Your task to perform on an android device: turn on notifications settings in the gmail app Image 0: 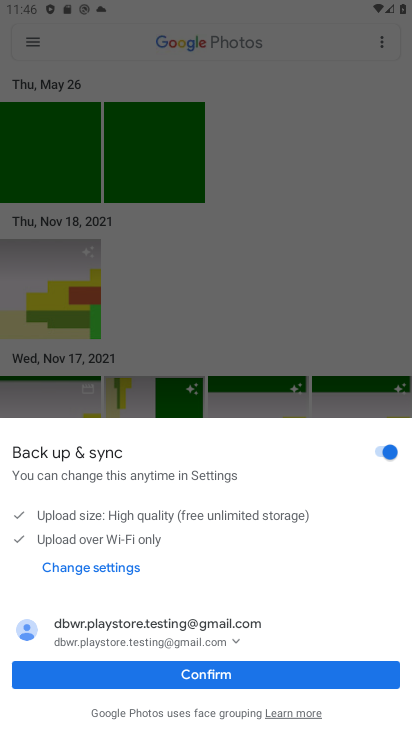
Step 0: press home button
Your task to perform on an android device: turn on notifications settings in the gmail app Image 1: 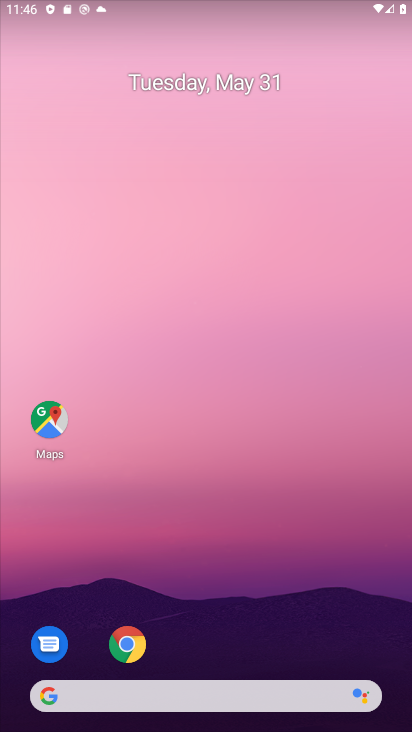
Step 1: drag from (277, 549) to (269, 167)
Your task to perform on an android device: turn on notifications settings in the gmail app Image 2: 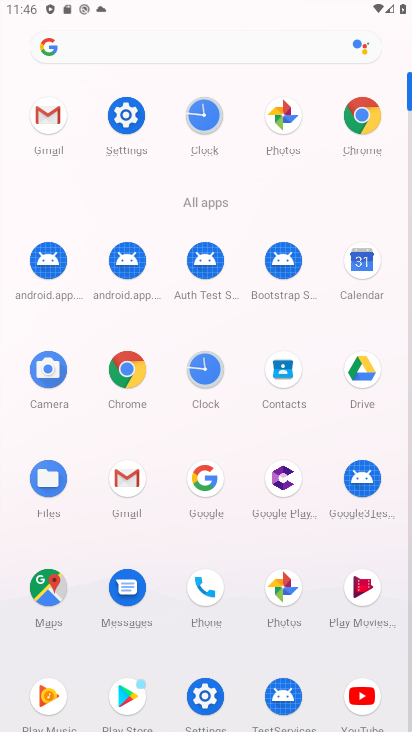
Step 2: click (208, 689)
Your task to perform on an android device: turn on notifications settings in the gmail app Image 3: 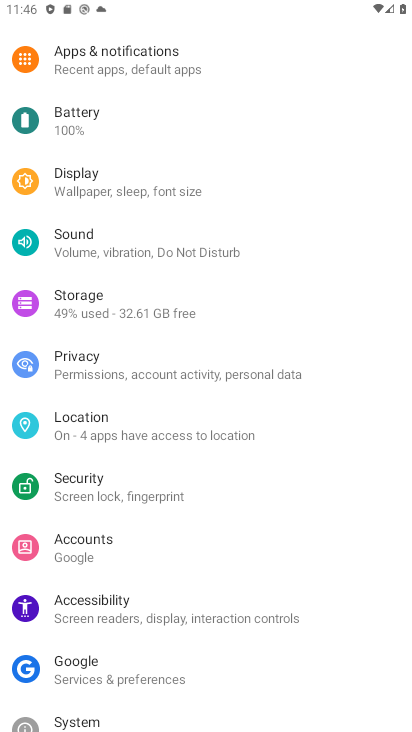
Step 3: drag from (236, 528) to (312, 195)
Your task to perform on an android device: turn on notifications settings in the gmail app Image 4: 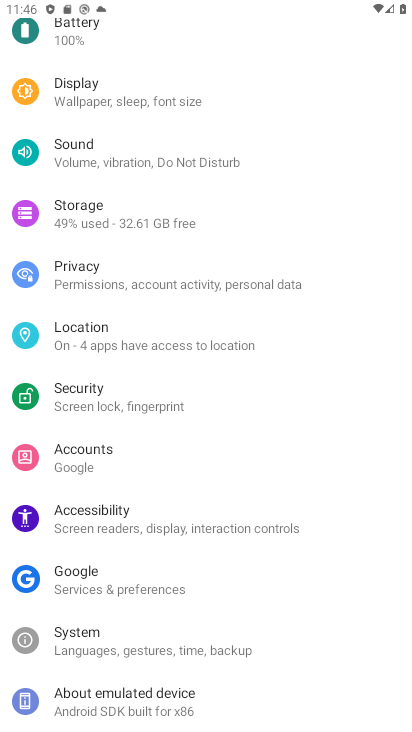
Step 4: drag from (135, 129) to (186, 452)
Your task to perform on an android device: turn on notifications settings in the gmail app Image 5: 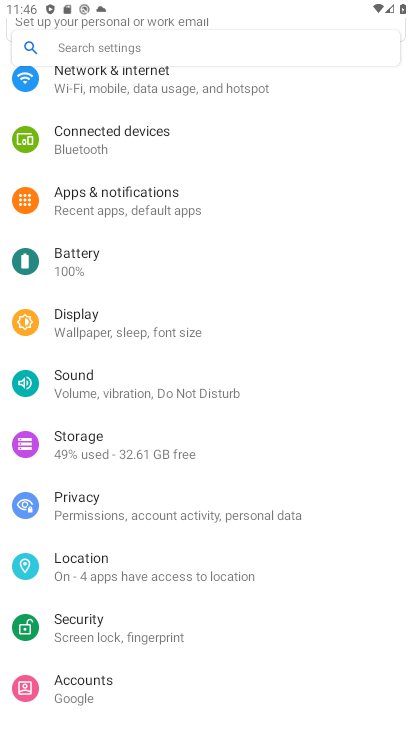
Step 5: click (189, 195)
Your task to perform on an android device: turn on notifications settings in the gmail app Image 6: 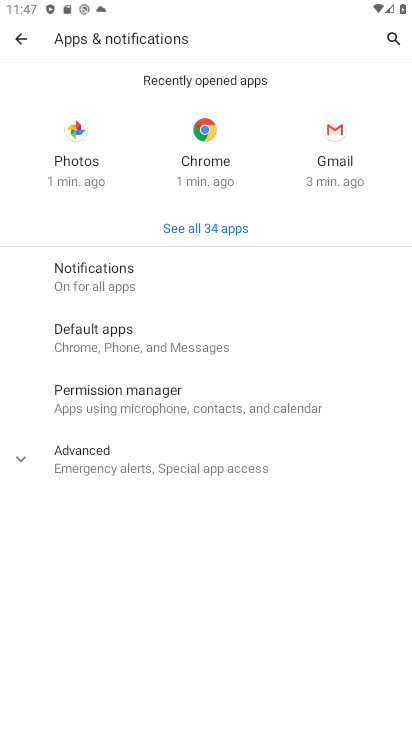
Step 6: click (146, 280)
Your task to perform on an android device: turn on notifications settings in the gmail app Image 7: 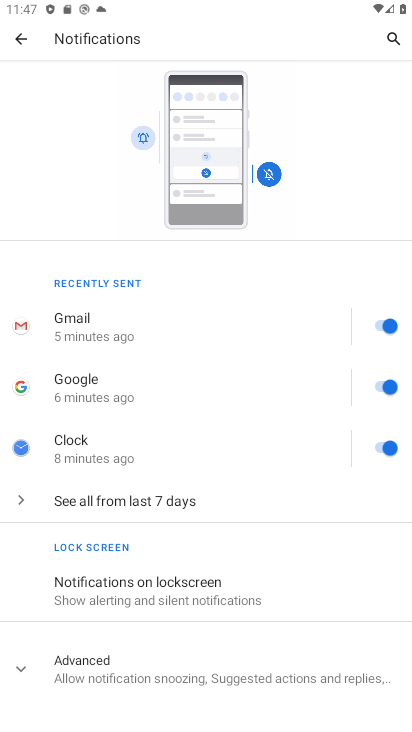
Step 7: click (231, 587)
Your task to perform on an android device: turn on notifications settings in the gmail app Image 8: 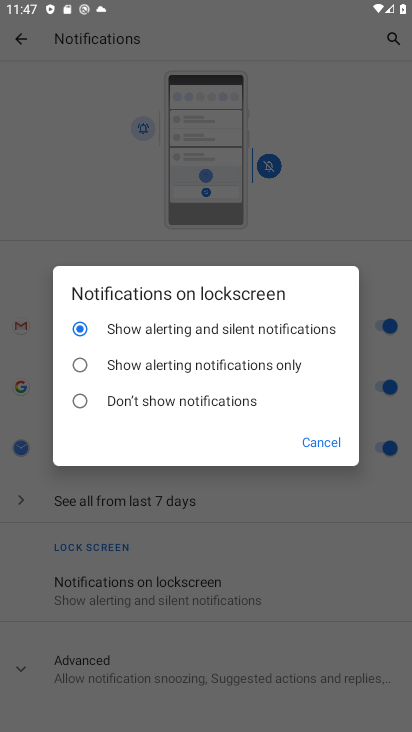
Step 8: click (318, 448)
Your task to perform on an android device: turn on notifications settings in the gmail app Image 9: 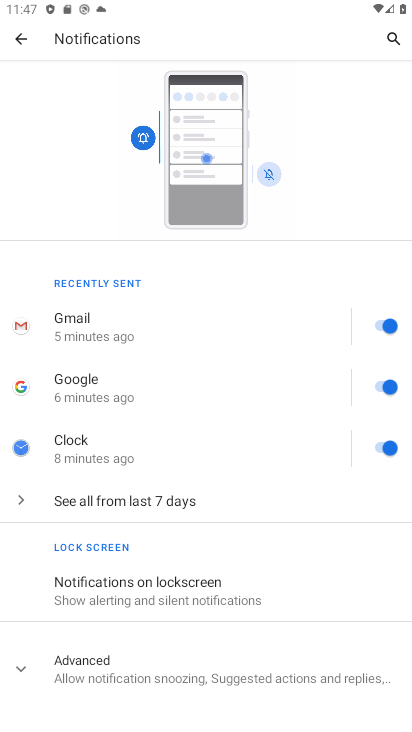
Step 9: task complete